Your task to perform on an android device: Open Google Chrome and open the bookmarks view Image 0: 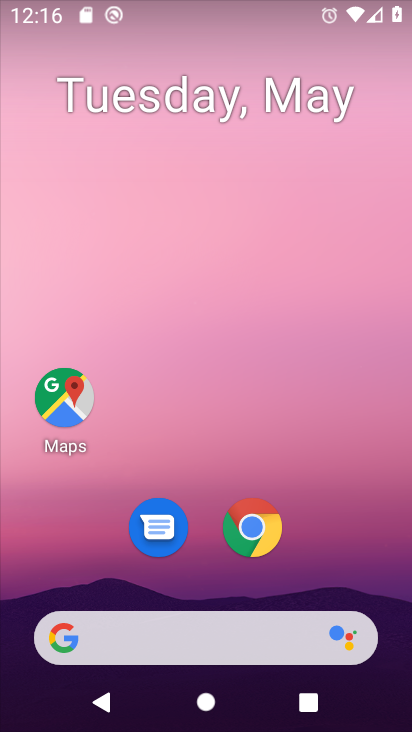
Step 0: click (255, 521)
Your task to perform on an android device: Open Google Chrome and open the bookmarks view Image 1: 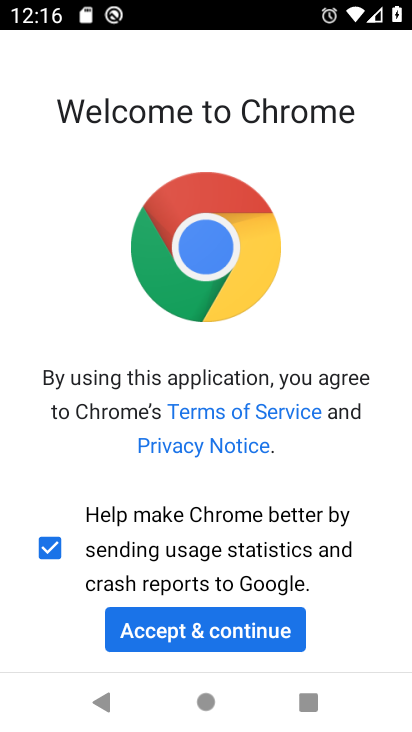
Step 1: click (163, 634)
Your task to perform on an android device: Open Google Chrome and open the bookmarks view Image 2: 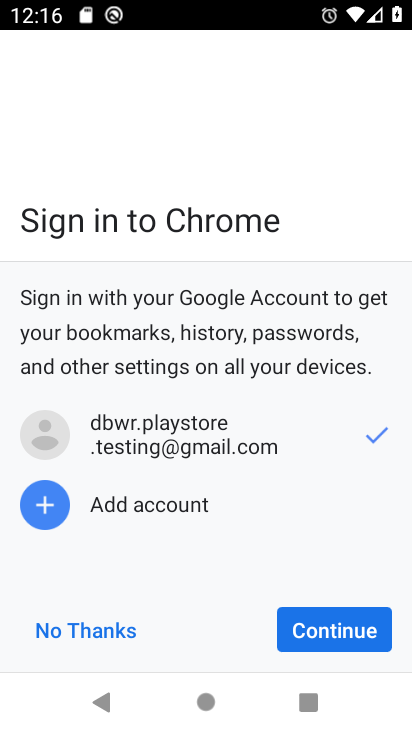
Step 2: click (317, 635)
Your task to perform on an android device: Open Google Chrome and open the bookmarks view Image 3: 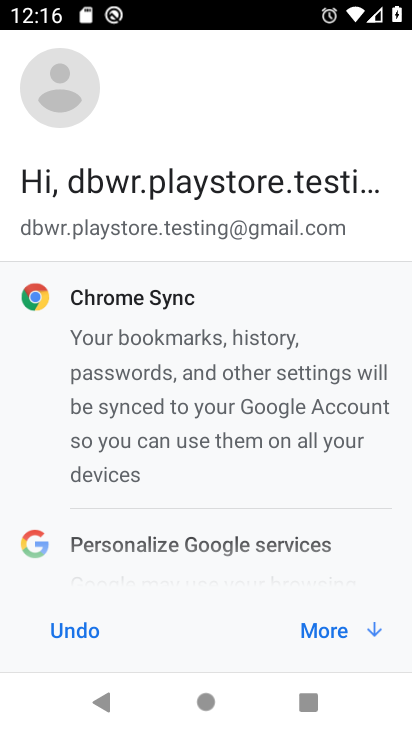
Step 3: click (317, 635)
Your task to perform on an android device: Open Google Chrome and open the bookmarks view Image 4: 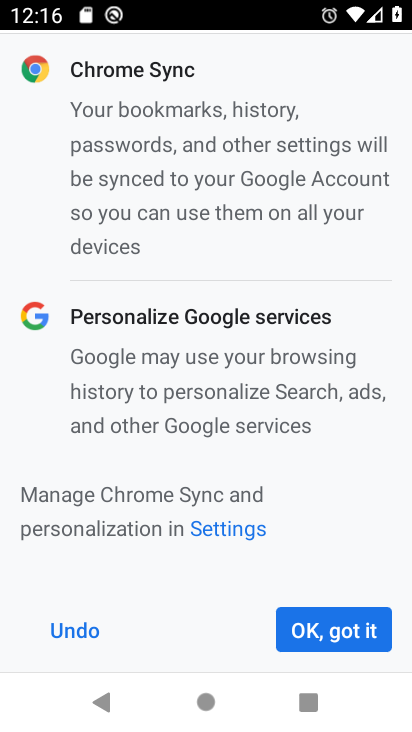
Step 4: click (317, 635)
Your task to perform on an android device: Open Google Chrome and open the bookmarks view Image 5: 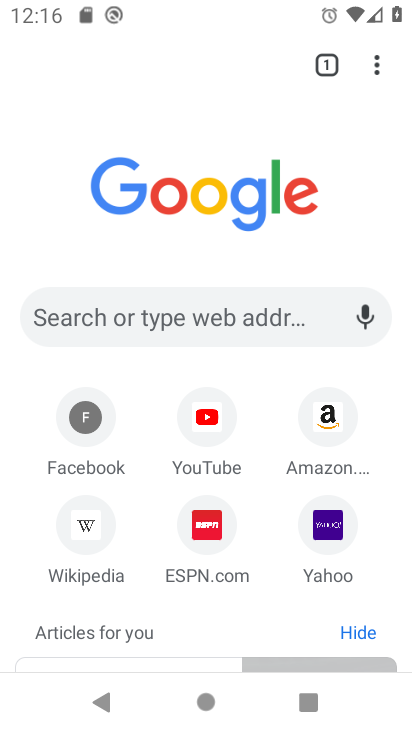
Step 5: click (377, 58)
Your task to perform on an android device: Open Google Chrome and open the bookmarks view Image 6: 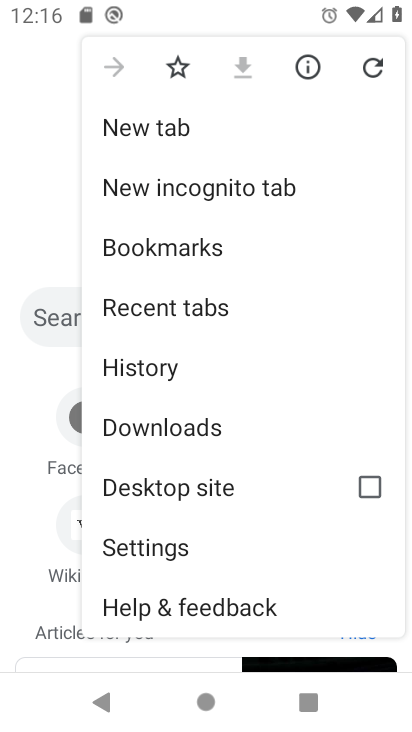
Step 6: click (162, 257)
Your task to perform on an android device: Open Google Chrome and open the bookmarks view Image 7: 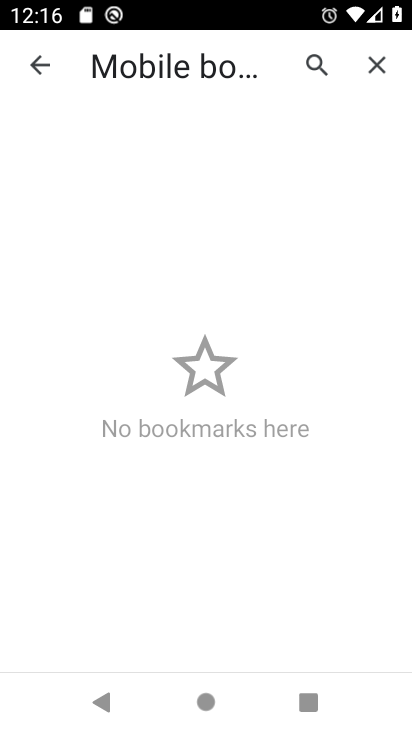
Step 7: task complete